Your task to perform on an android device: When is my next appointment? Image 0: 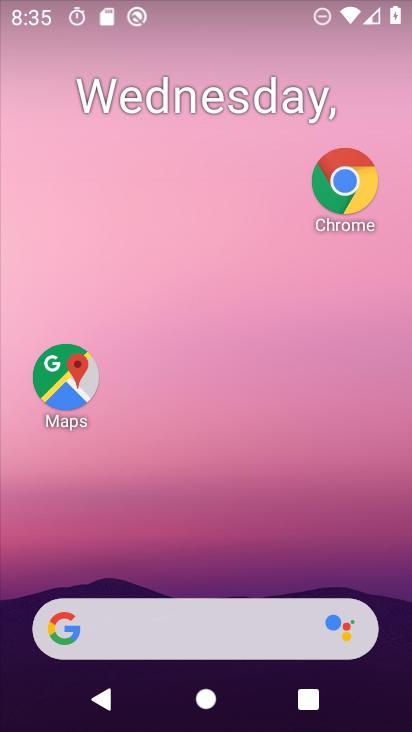
Step 0: drag from (305, 660) to (269, 182)
Your task to perform on an android device: When is my next appointment? Image 1: 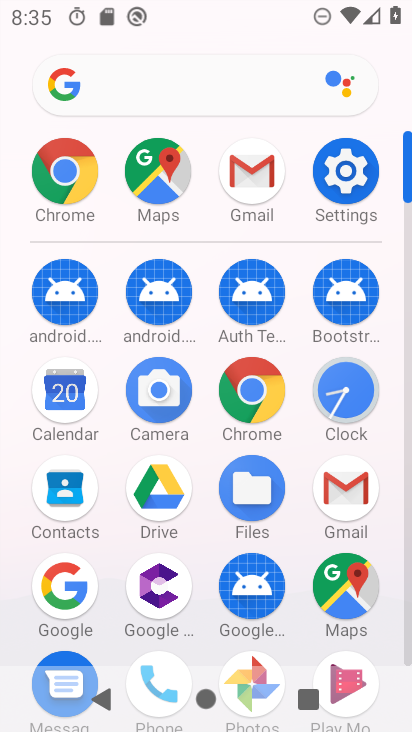
Step 1: click (90, 388)
Your task to perform on an android device: When is my next appointment? Image 2: 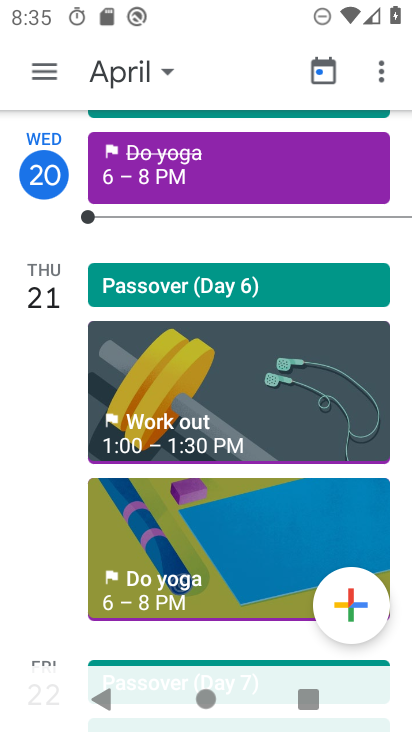
Step 2: click (32, 77)
Your task to perform on an android device: When is my next appointment? Image 3: 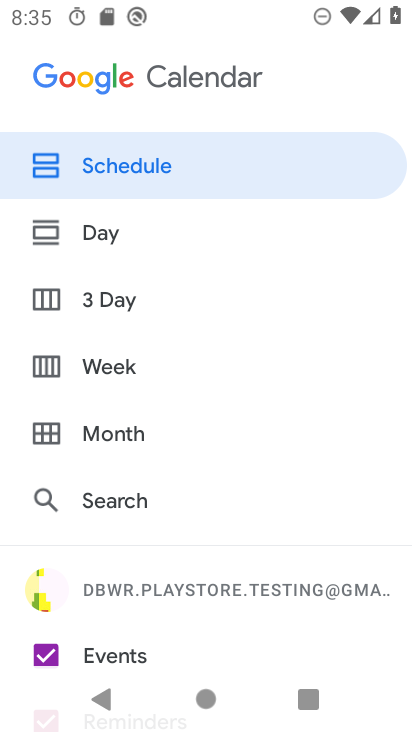
Step 3: click (133, 158)
Your task to perform on an android device: When is my next appointment? Image 4: 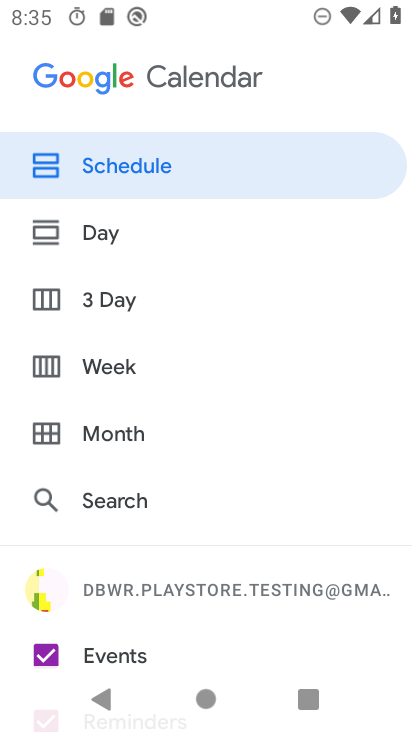
Step 4: click (123, 169)
Your task to perform on an android device: When is my next appointment? Image 5: 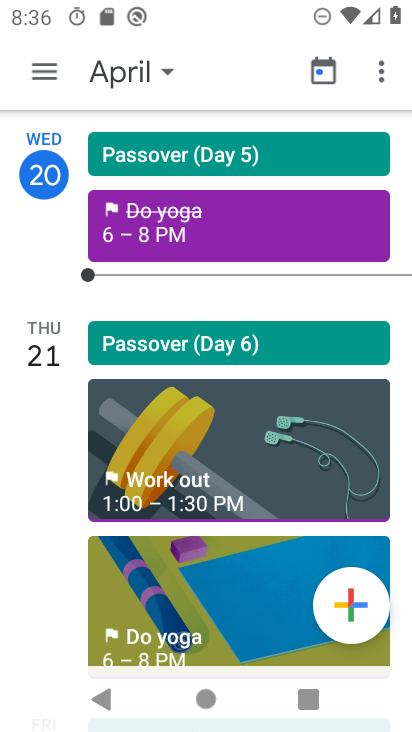
Step 5: task complete